Your task to perform on an android device: Go to wifi settings Image 0: 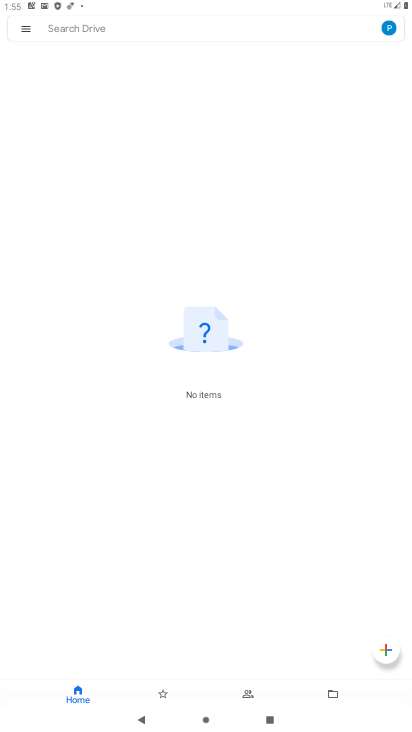
Step 0: press home button
Your task to perform on an android device: Go to wifi settings Image 1: 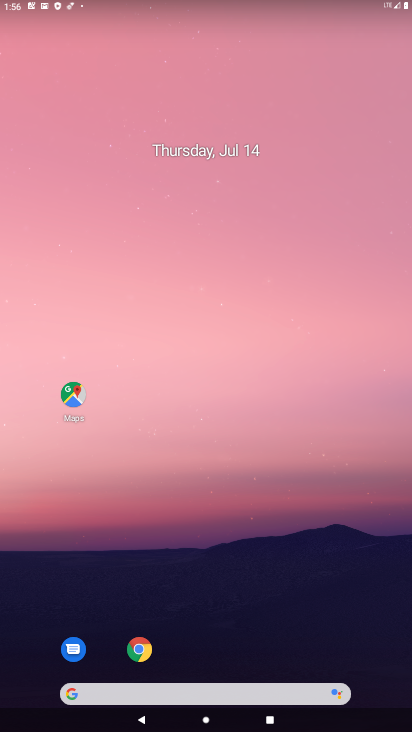
Step 1: drag from (388, 614) to (240, 2)
Your task to perform on an android device: Go to wifi settings Image 2: 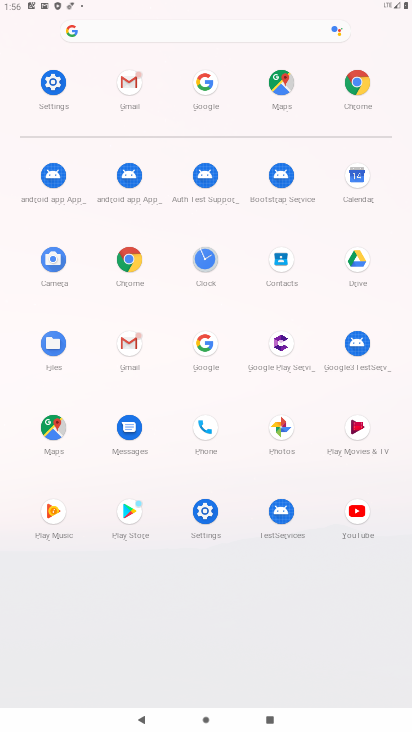
Step 2: click (58, 82)
Your task to perform on an android device: Go to wifi settings Image 3: 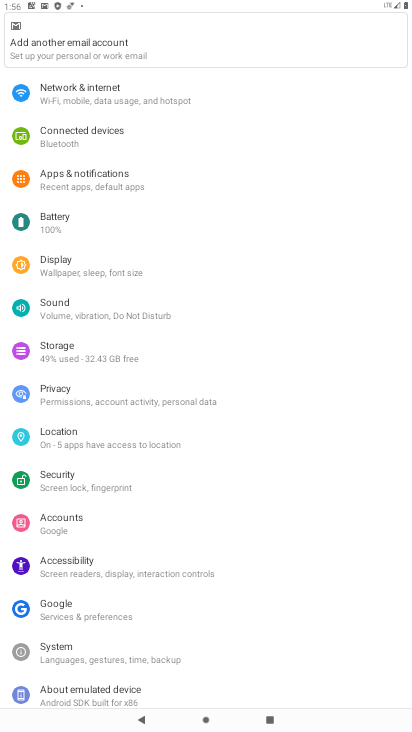
Step 3: click (146, 95)
Your task to perform on an android device: Go to wifi settings Image 4: 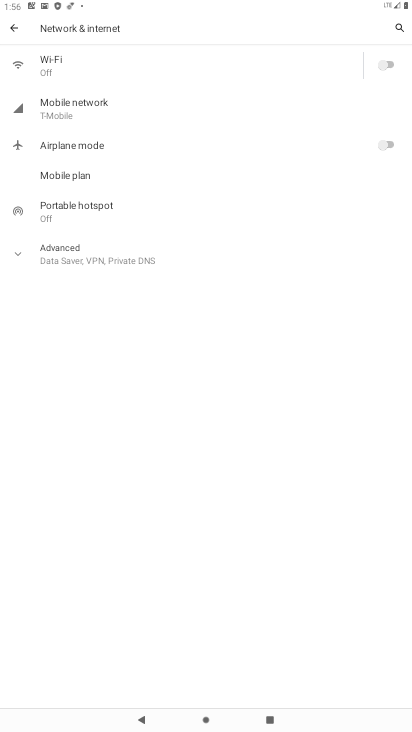
Step 4: click (75, 69)
Your task to perform on an android device: Go to wifi settings Image 5: 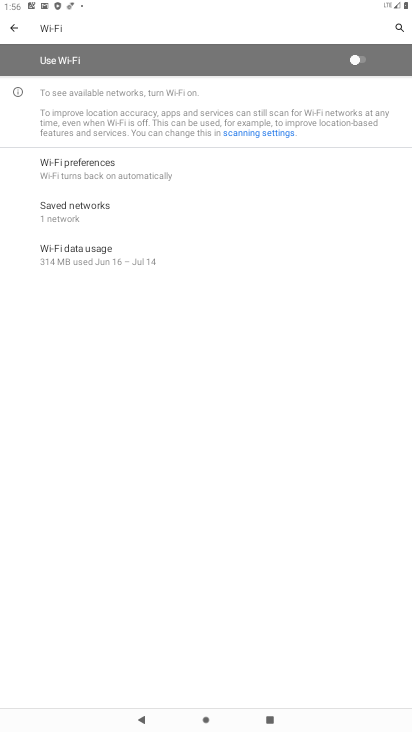
Step 5: task complete